Your task to perform on an android device: Play the last video I watched on Youtube Image 0: 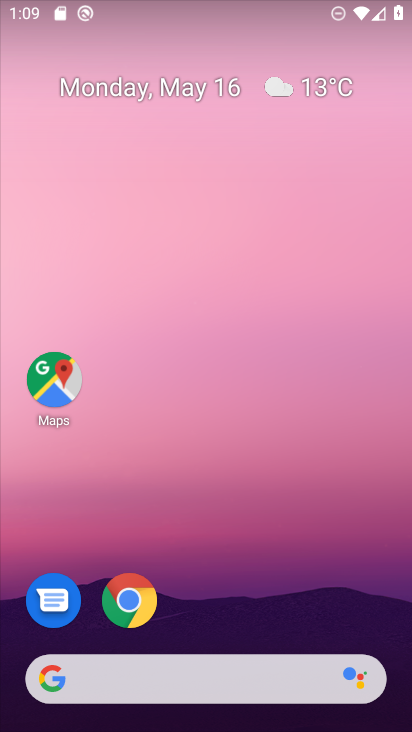
Step 0: press home button
Your task to perform on an android device: Play the last video I watched on Youtube Image 1: 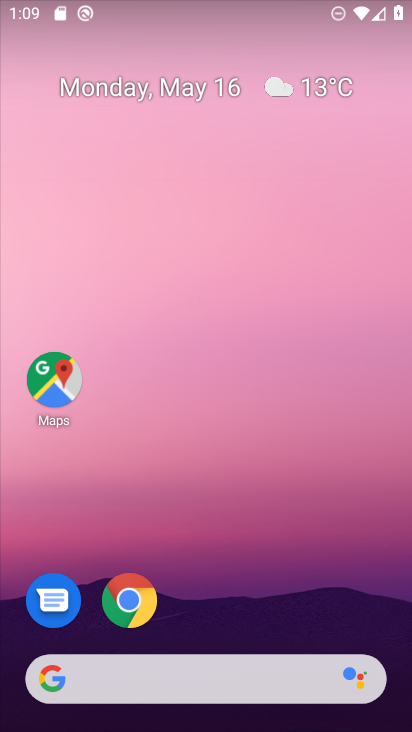
Step 1: drag from (224, 638) to (263, 30)
Your task to perform on an android device: Play the last video I watched on Youtube Image 2: 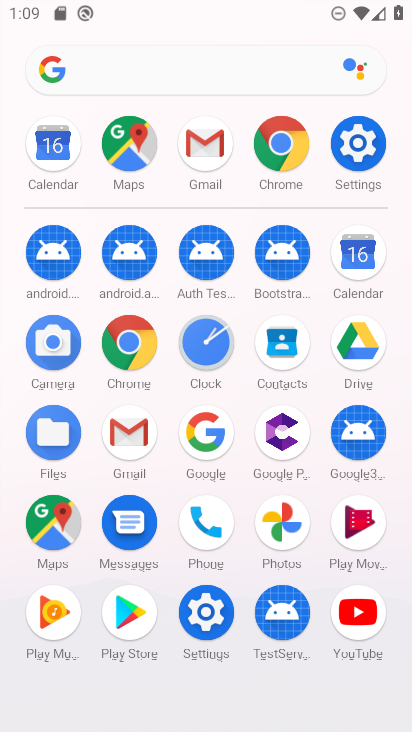
Step 2: click (354, 604)
Your task to perform on an android device: Play the last video I watched on Youtube Image 3: 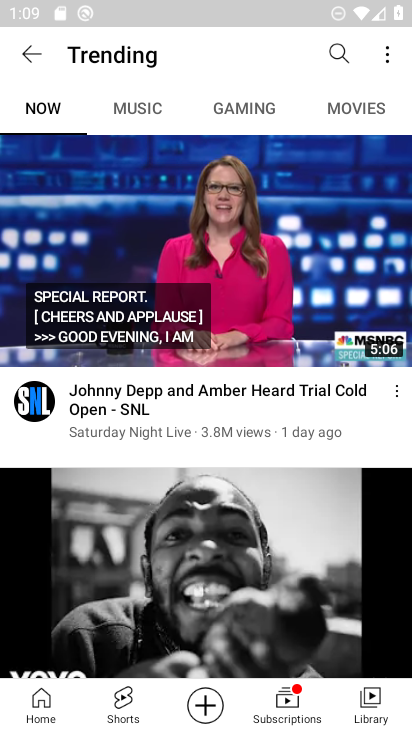
Step 3: click (373, 695)
Your task to perform on an android device: Play the last video I watched on Youtube Image 4: 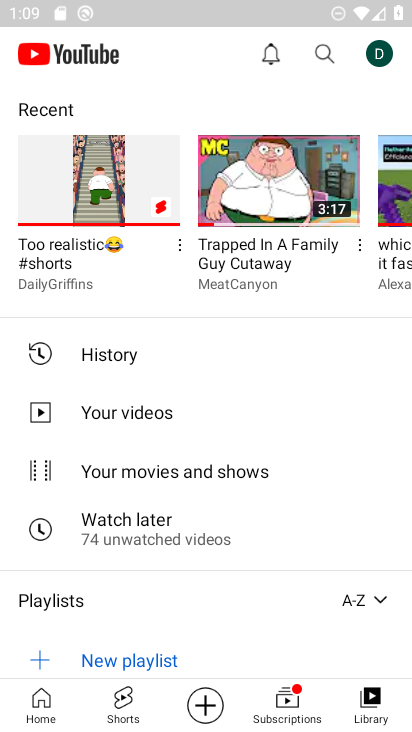
Step 4: click (75, 173)
Your task to perform on an android device: Play the last video I watched on Youtube Image 5: 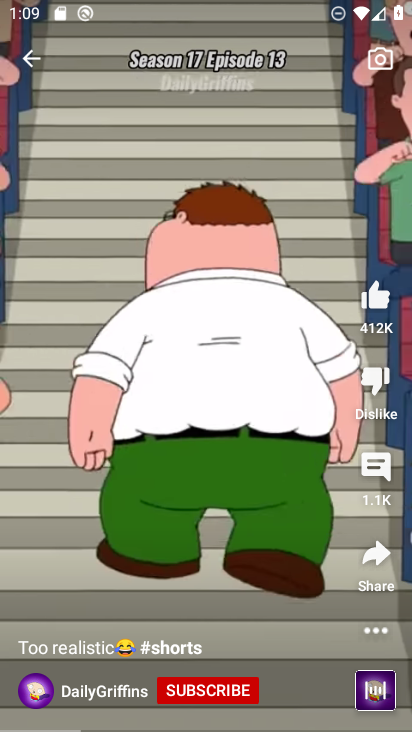
Step 5: task complete